Your task to perform on an android device: change the upload size in google photos Image 0: 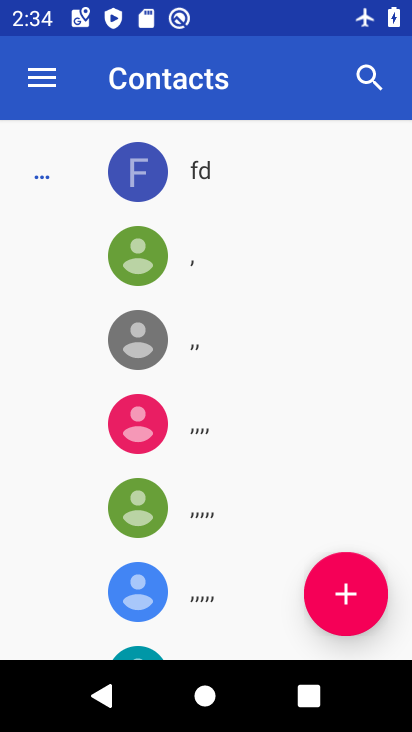
Step 0: press home button
Your task to perform on an android device: change the upload size in google photos Image 1: 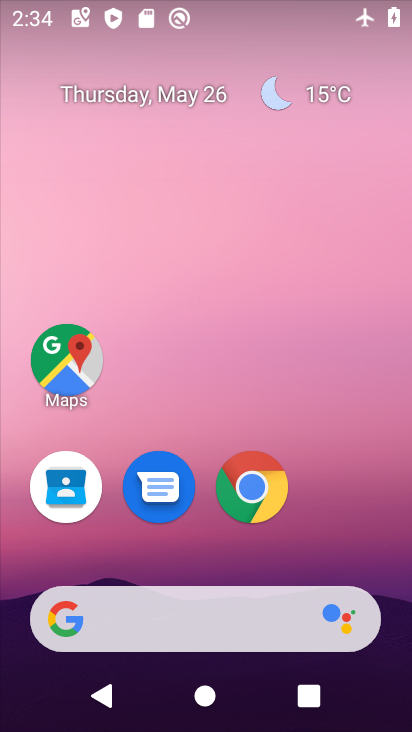
Step 1: drag from (221, 573) to (231, 166)
Your task to perform on an android device: change the upload size in google photos Image 2: 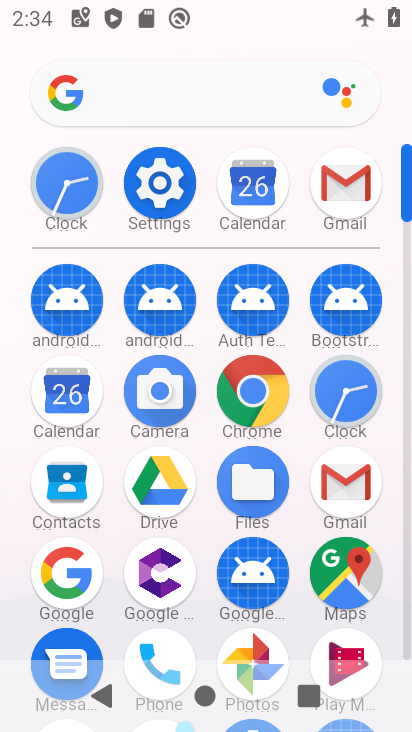
Step 2: drag from (208, 563) to (231, 320)
Your task to perform on an android device: change the upload size in google photos Image 3: 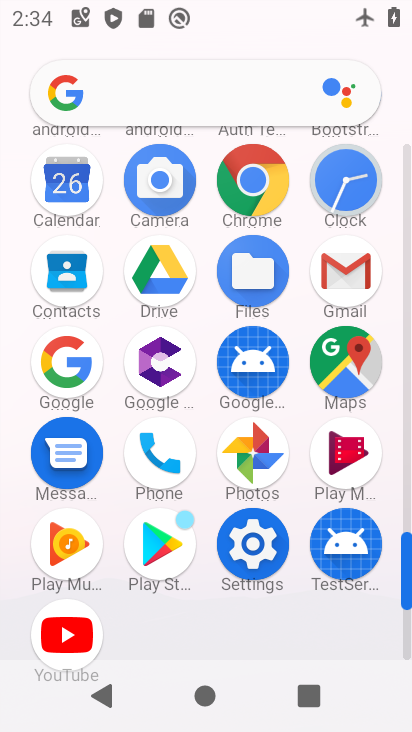
Step 3: click (271, 443)
Your task to perform on an android device: change the upload size in google photos Image 4: 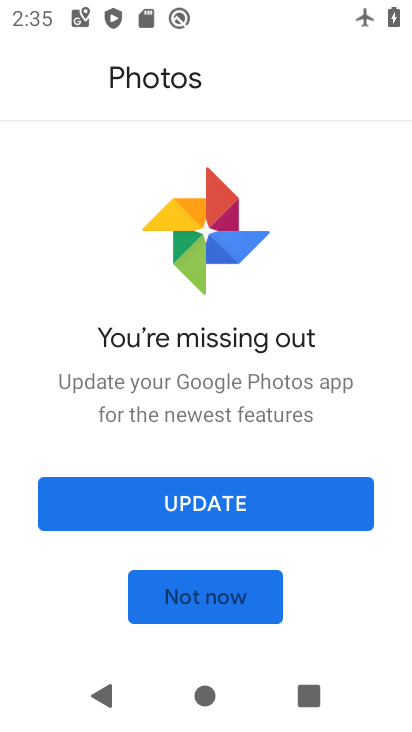
Step 4: click (200, 592)
Your task to perform on an android device: change the upload size in google photos Image 5: 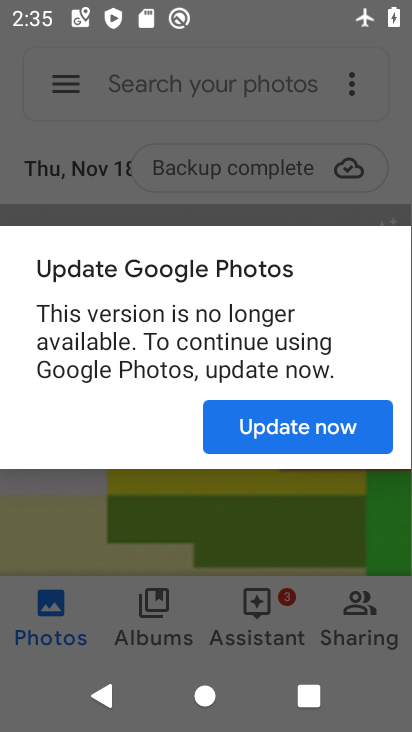
Step 5: click (257, 428)
Your task to perform on an android device: change the upload size in google photos Image 6: 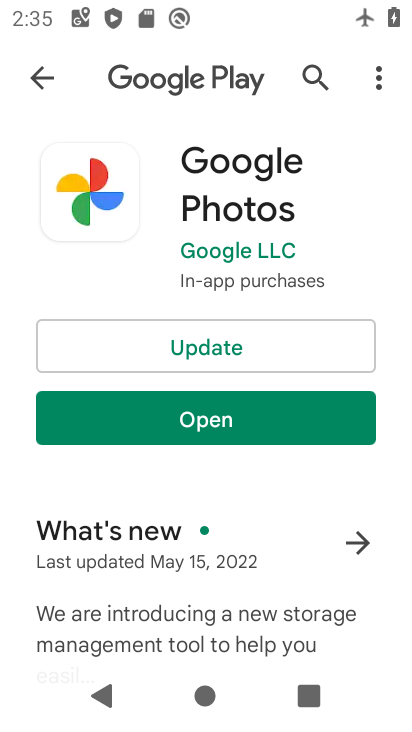
Step 6: click (300, 416)
Your task to perform on an android device: change the upload size in google photos Image 7: 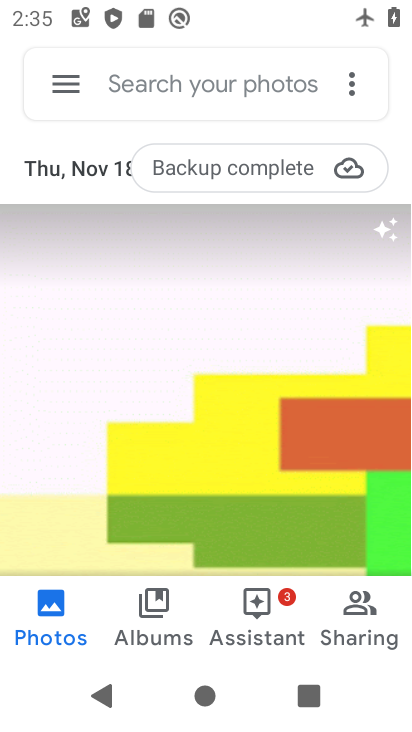
Step 7: click (73, 86)
Your task to perform on an android device: change the upload size in google photos Image 8: 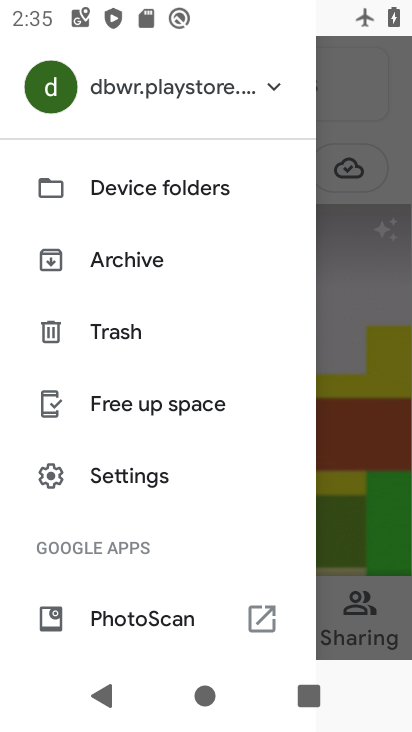
Step 8: drag from (203, 599) to (205, 421)
Your task to perform on an android device: change the upload size in google photos Image 9: 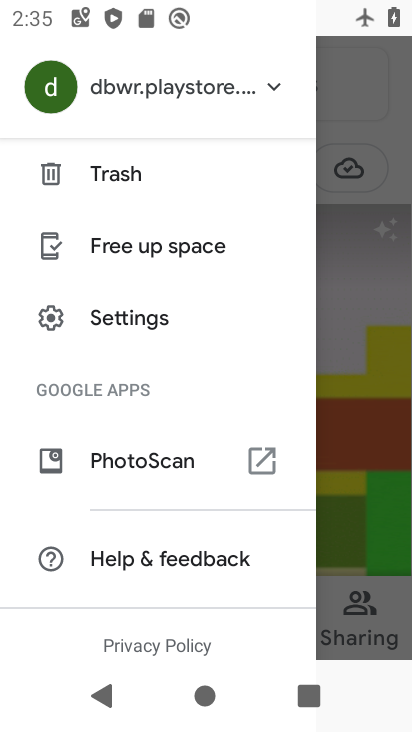
Step 9: click (171, 322)
Your task to perform on an android device: change the upload size in google photos Image 10: 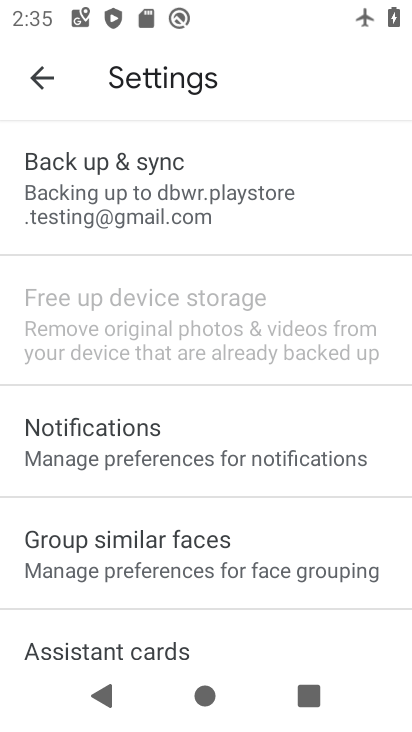
Step 10: click (171, 225)
Your task to perform on an android device: change the upload size in google photos Image 11: 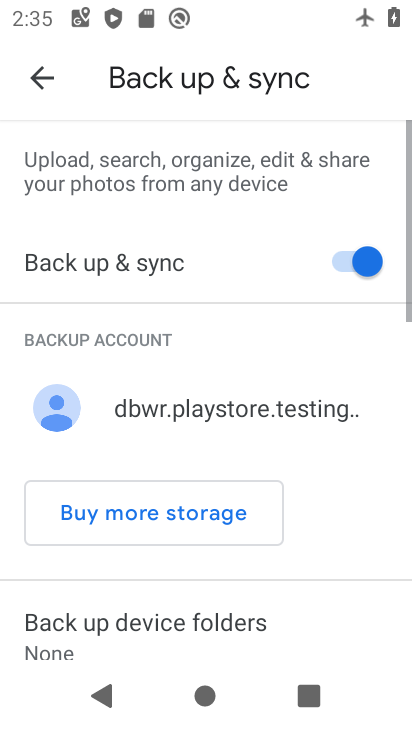
Step 11: drag from (216, 556) to (264, 233)
Your task to perform on an android device: change the upload size in google photos Image 12: 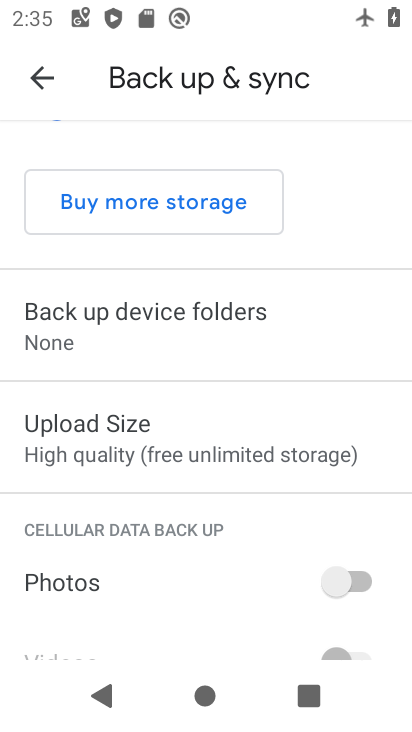
Step 12: drag from (264, 534) to (319, 315)
Your task to perform on an android device: change the upload size in google photos Image 13: 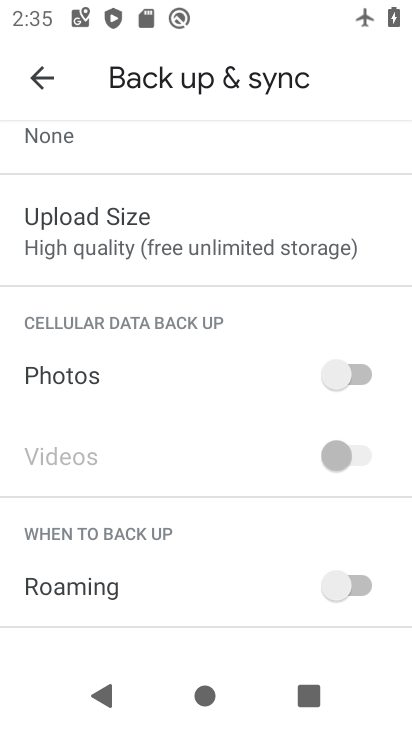
Step 13: click (196, 249)
Your task to perform on an android device: change the upload size in google photos Image 14: 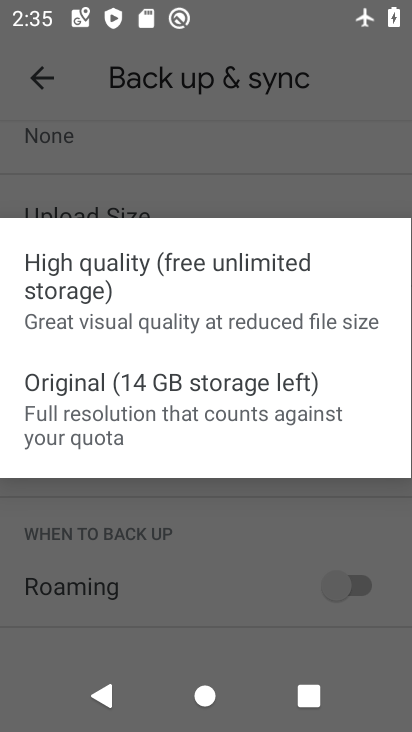
Step 14: click (139, 399)
Your task to perform on an android device: change the upload size in google photos Image 15: 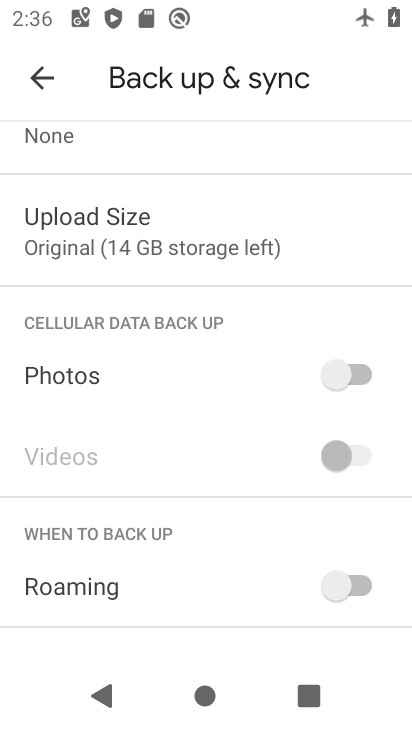
Step 15: task complete